Your task to perform on an android device: Go to battery settings Image 0: 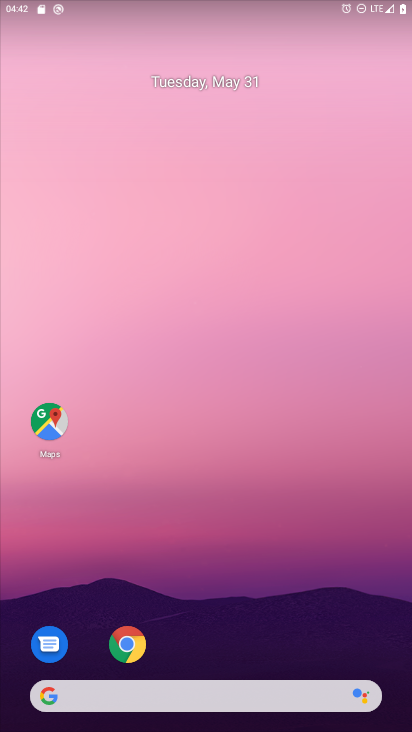
Step 0: drag from (253, 572) to (248, 211)
Your task to perform on an android device: Go to battery settings Image 1: 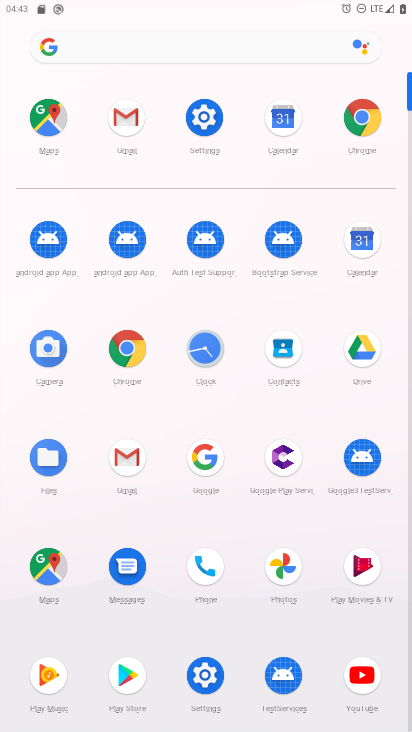
Step 1: click (197, 121)
Your task to perform on an android device: Go to battery settings Image 2: 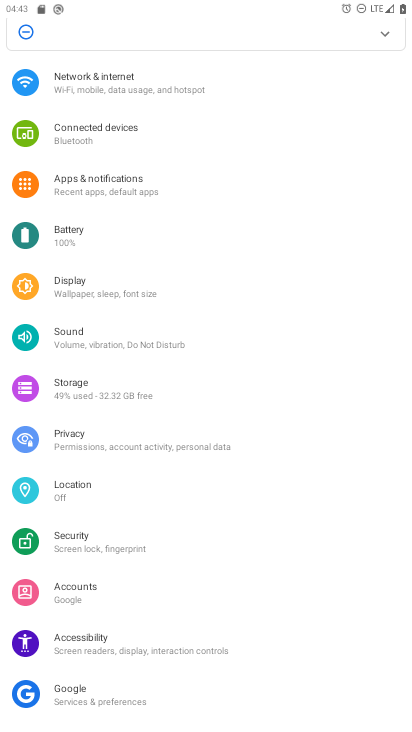
Step 2: click (97, 235)
Your task to perform on an android device: Go to battery settings Image 3: 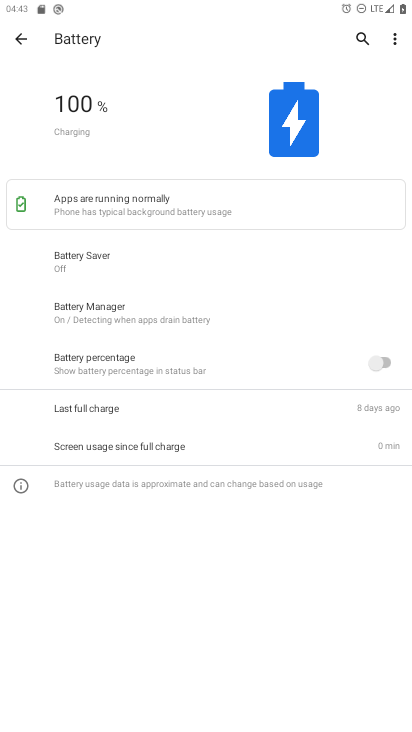
Step 3: task complete